Your task to perform on an android device: Open calendar and show me the second week of next month Image 0: 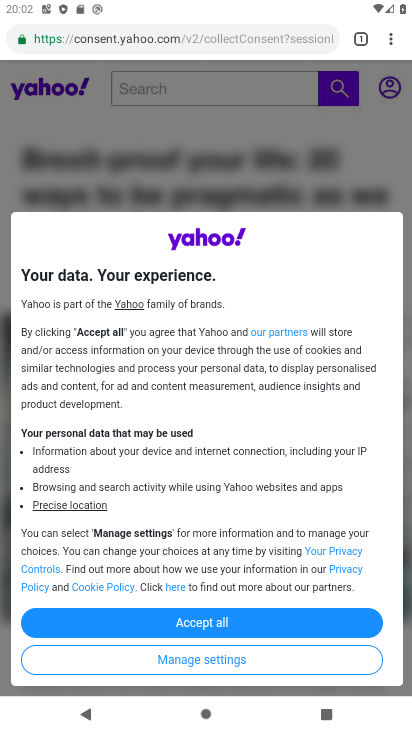
Step 0: press home button
Your task to perform on an android device: Open calendar and show me the second week of next month Image 1: 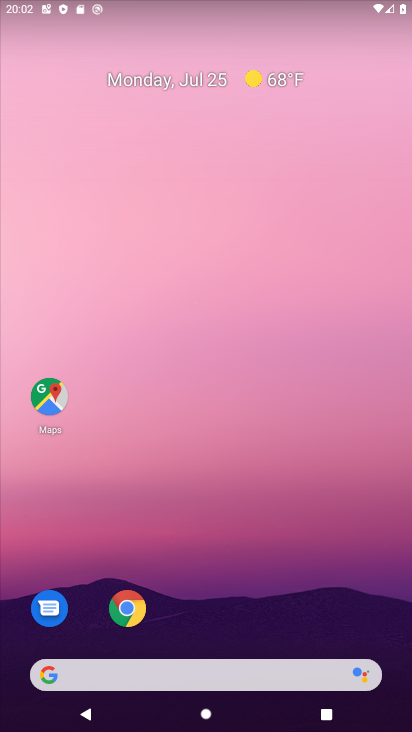
Step 1: drag from (264, 626) to (261, 10)
Your task to perform on an android device: Open calendar and show me the second week of next month Image 2: 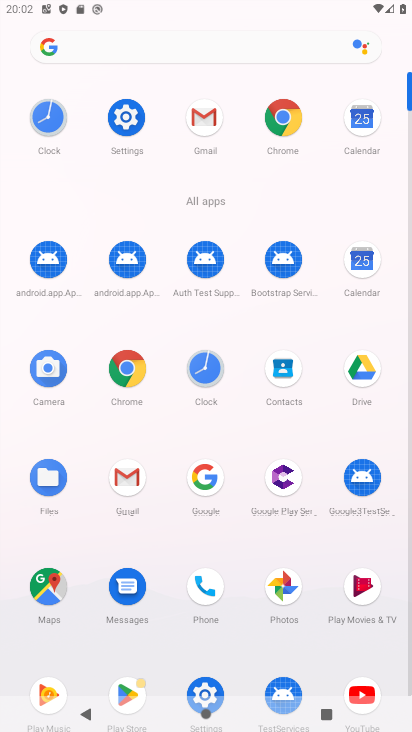
Step 2: click (365, 121)
Your task to perform on an android device: Open calendar and show me the second week of next month Image 3: 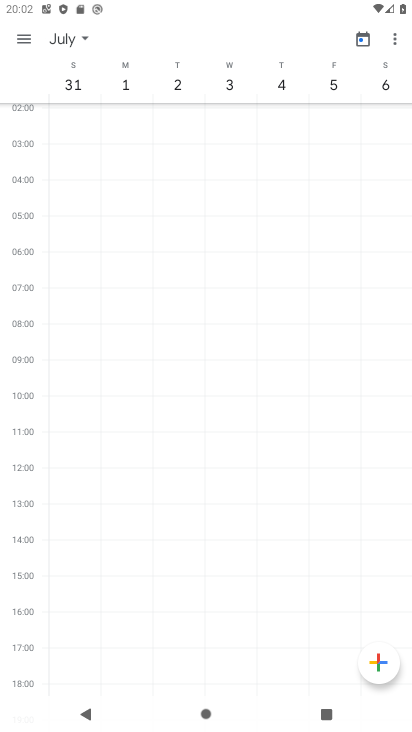
Step 3: task complete